Your task to perform on an android device: change the clock display to show seconds Image 0: 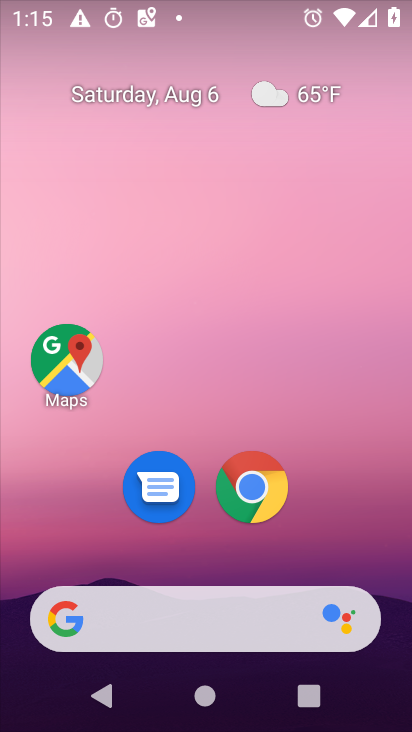
Step 0: drag from (191, 535) to (304, 0)
Your task to perform on an android device: change the clock display to show seconds Image 1: 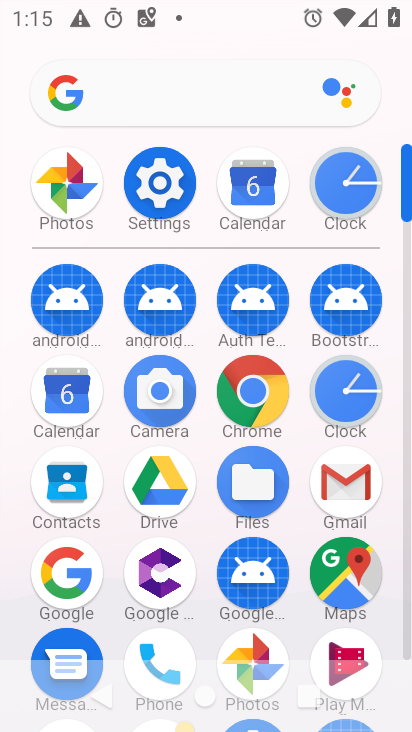
Step 1: click (314, 168)
Your task to perform on an android device: change the clock display to show seconds Image 2: 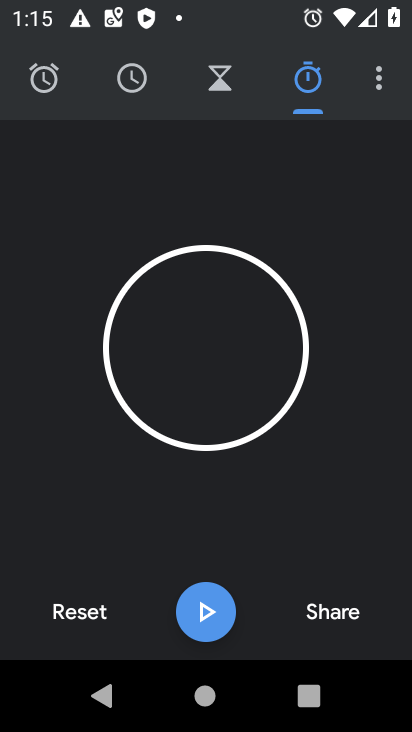
Step 2: click (383, 69)
Your task to perform on an android device: change the clock display to show seconds Image 3: 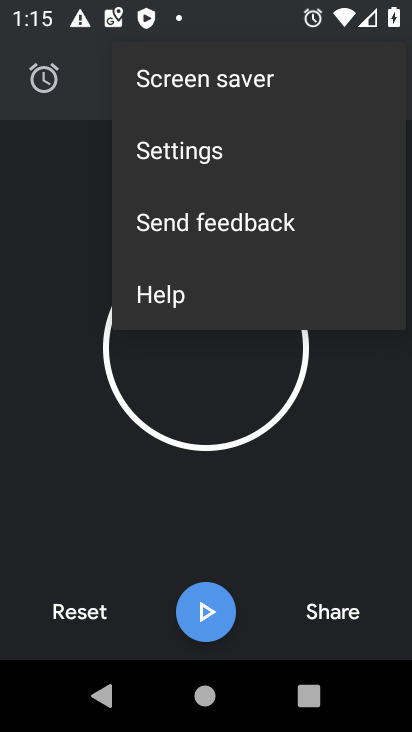
Step 3: click (187, 162)
Your task to perform on an android device: change the clock display to show seconds Image 4: 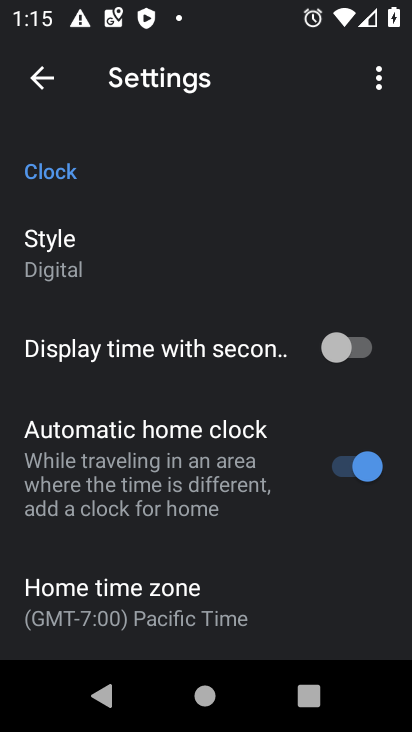
Step 4: click (354, 354)
Your task to perform on an android device: change the clock display to show seconds Image 5: 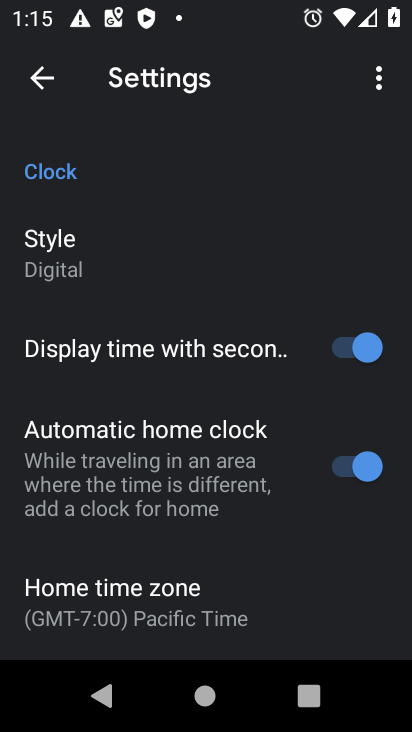
Step 5: task complete